Your task to perform on an android device: open wifi settings Image 0: 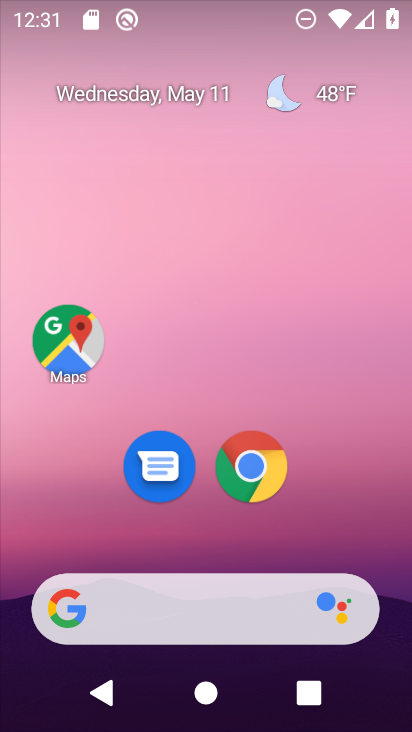
Step 0: drag from (210, 530) to (209, 31)
Your task to perform on an android device: open wifi settings Image 1: 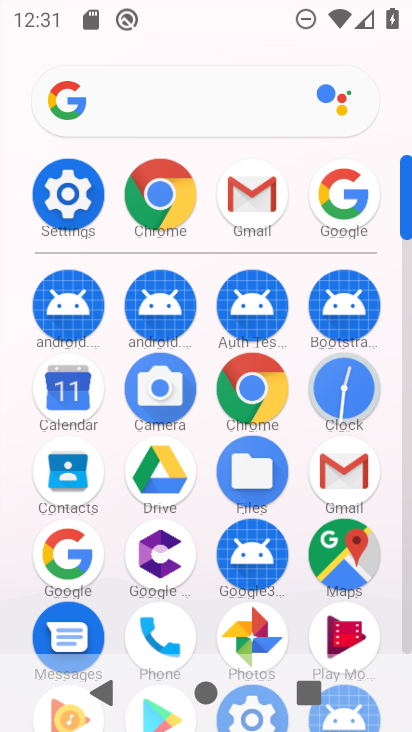
Step 1: click (70, 186)
Your task to perform on an android device: open wifi settings Image 2: 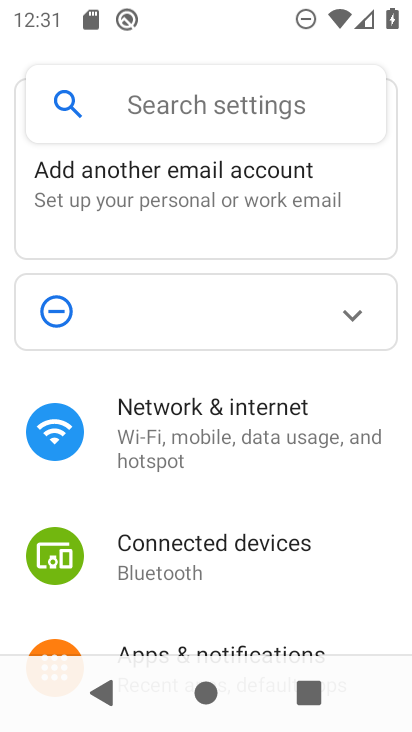
Step 2: click (220, 445)
Your task to perform on an android device: open wifi settings Image 3: 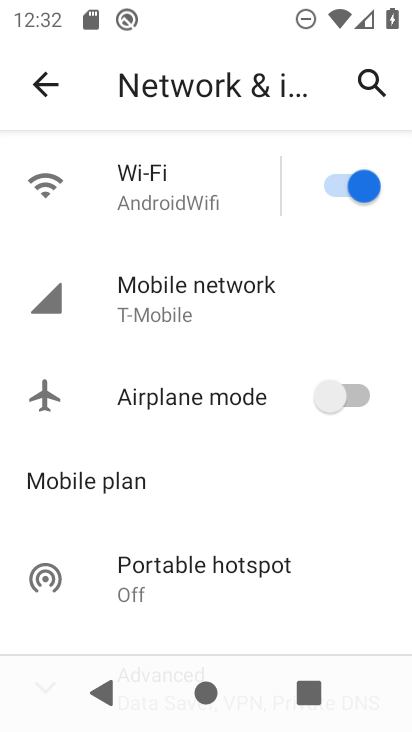
Step 3: click (201, 196)
Your task to perform on an android device: open wifi settings Image 4: 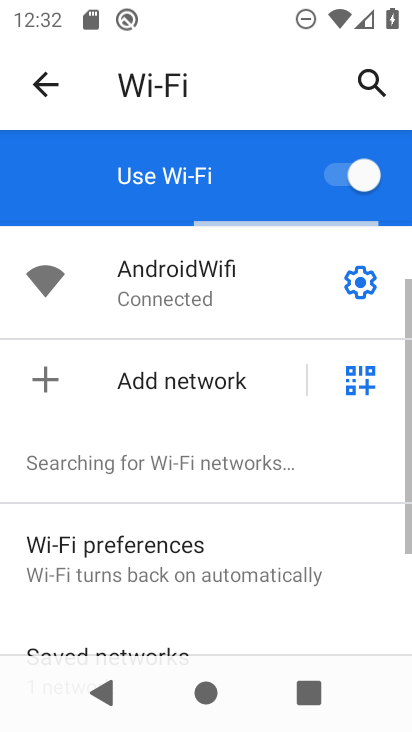
Step 4: task complete